Your task to perform on an android device: snooze an email in the gmail app Image 0: 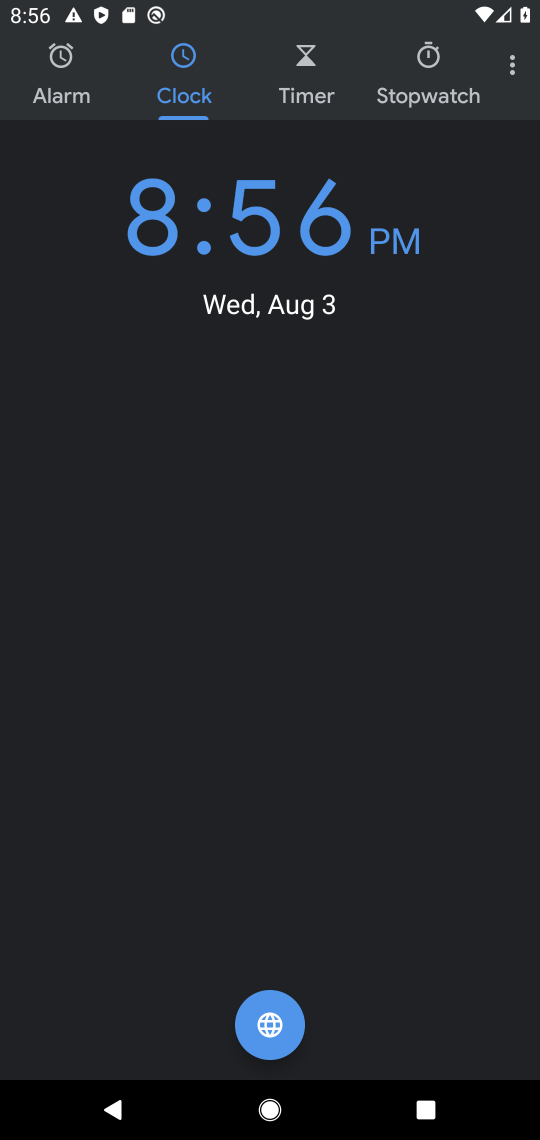
Step 0: press home button
Your task to perform on an android device: snooze an email in the gmail app Image 1: 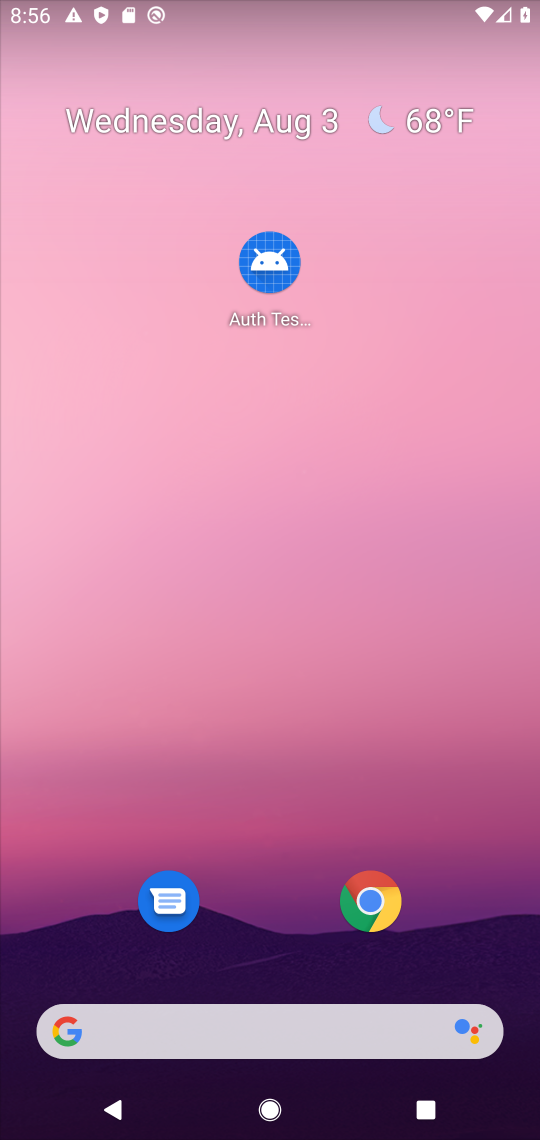
Step 1: drag from (500, 983) to (391, 273)
Your task to perform on an android device: snooze an email in the gmail app Image 2: 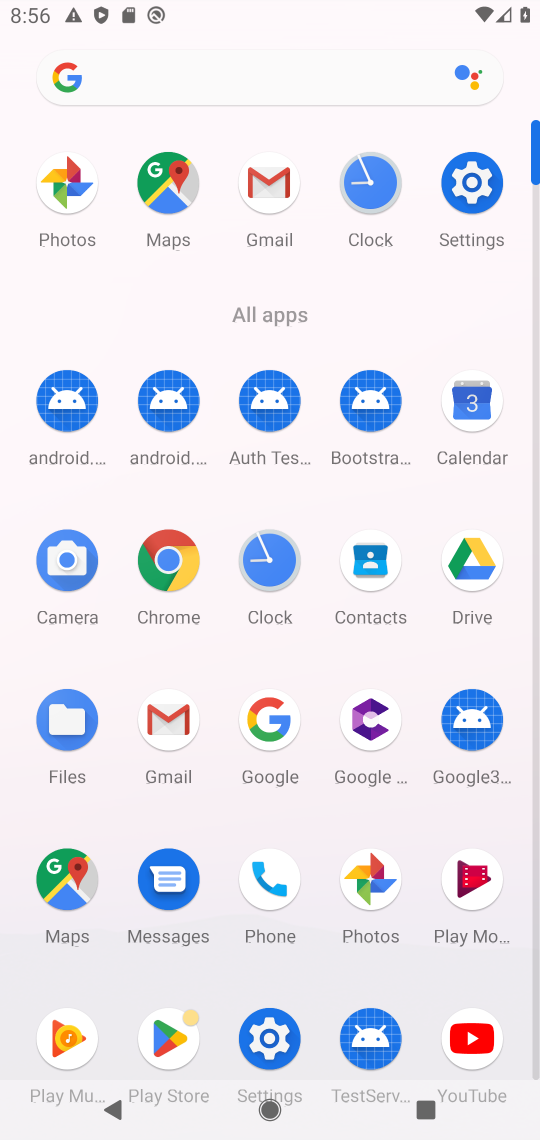
Step 2: click (263, 178)
Your task to perform on an android device: snooze an email in the gmail app Image 3: 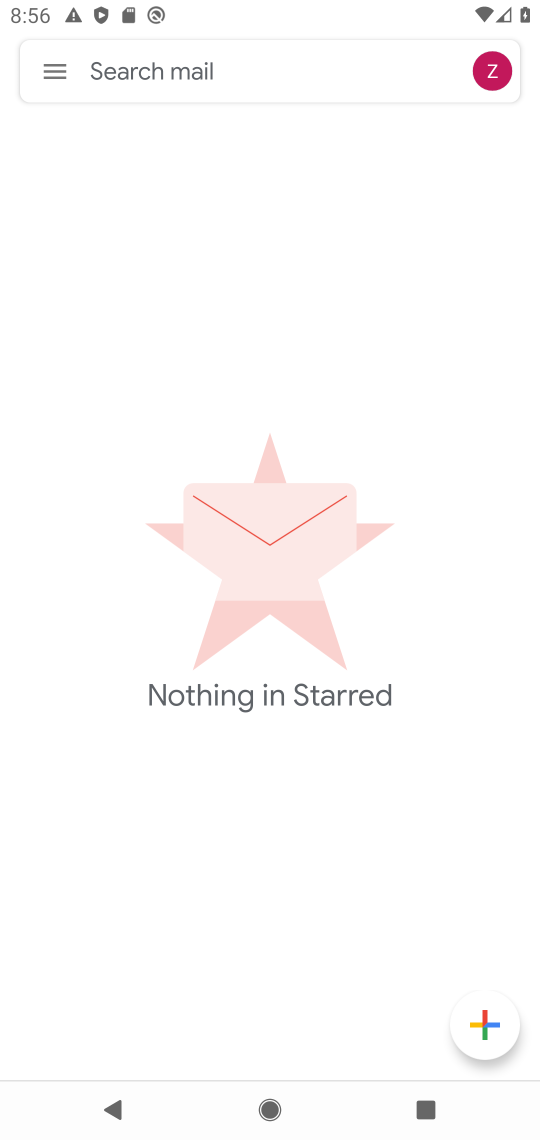
Step 3: click (50, 83)
Your task to perform on an android device: snooze an email in the gmail app Image 4: 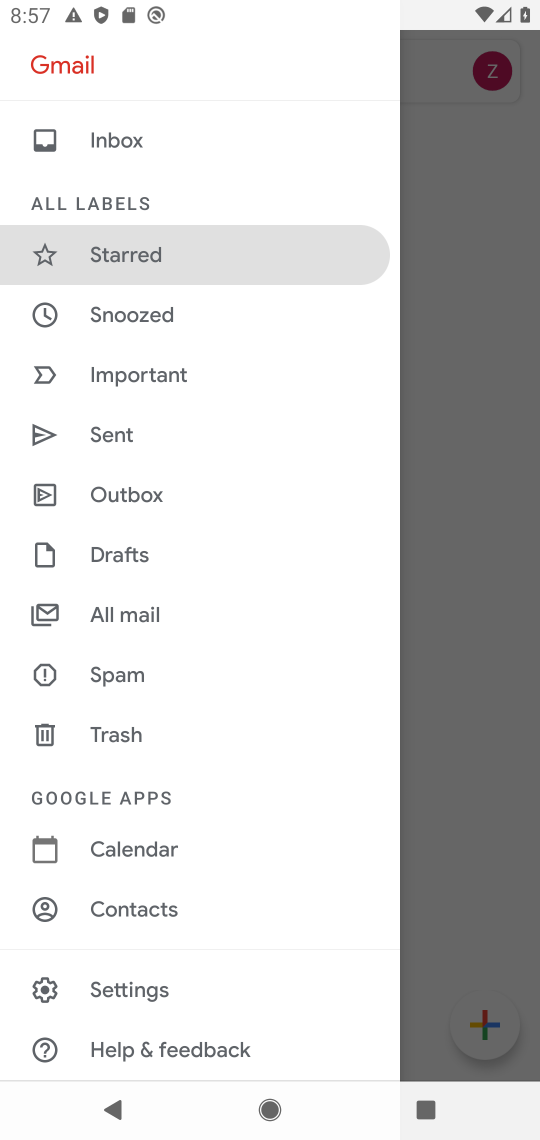
Step 4: click (139, 611)
Your task to perform on an android device: snooze an email in the gmail app Image 5: 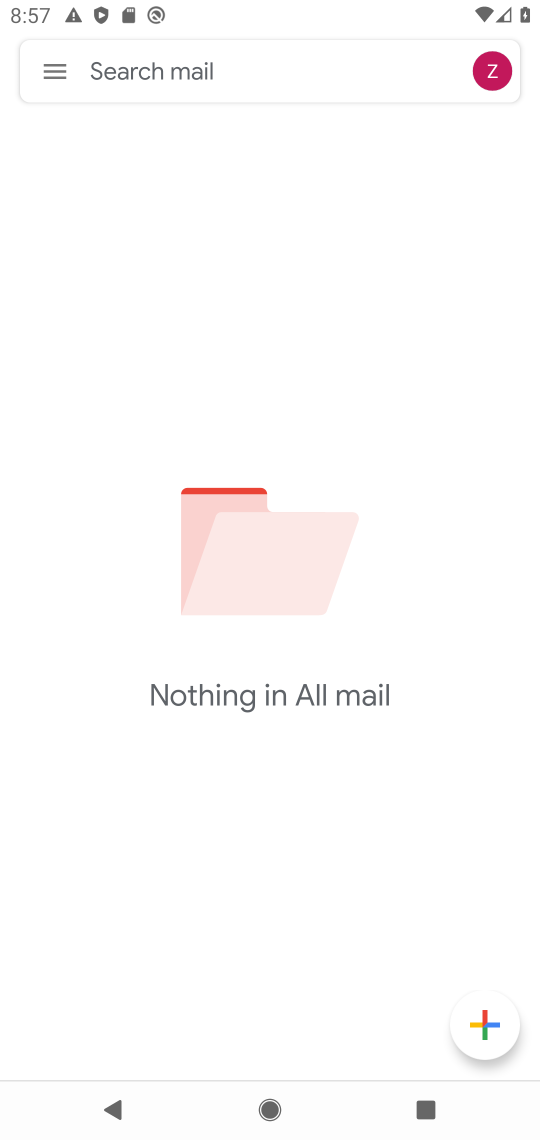
Step 5: task complete